Your task to perform on an android device: show emergency info Image 0: 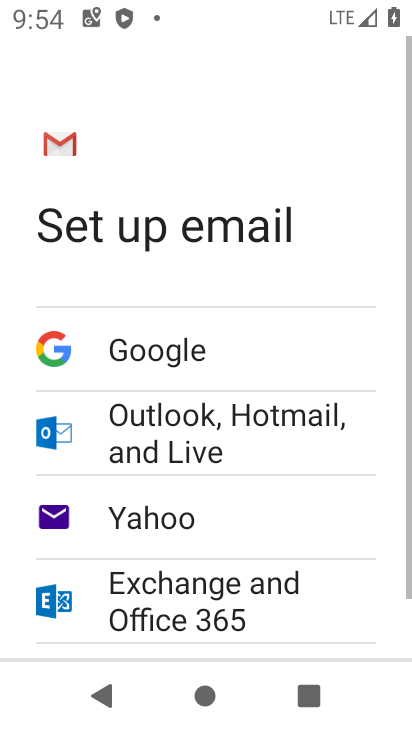
Step 0: press home button
Your task to perform on an android device: show emergency info Image 1: 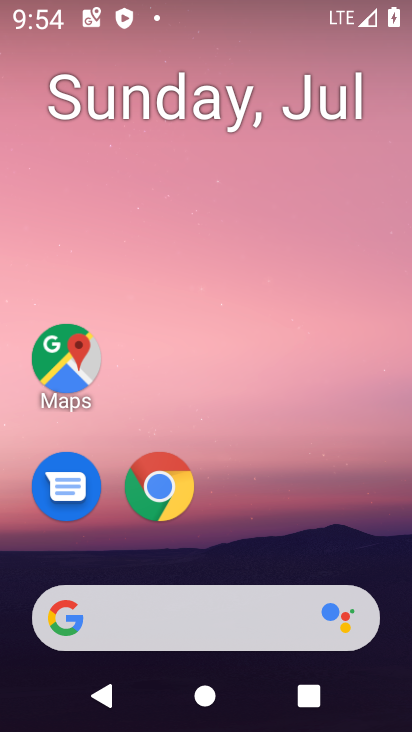
Step 1: drag from (350, 530) to (371, 88)
Your task to perform on an android device: show emergency info Image 2: 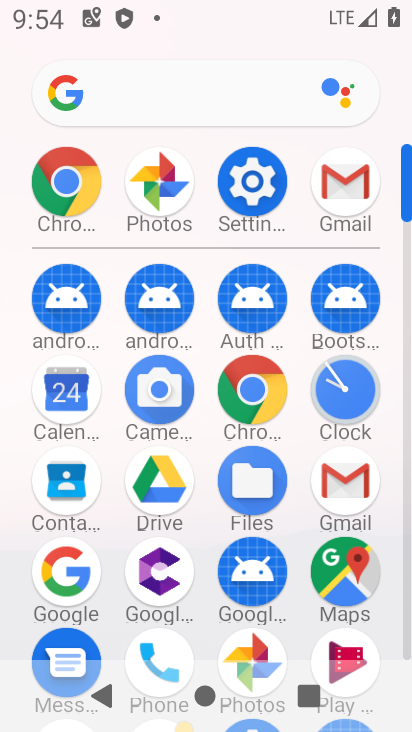
Step 2: click (253, 191)
Your task to perform on an android device: show emergency info Image 3: 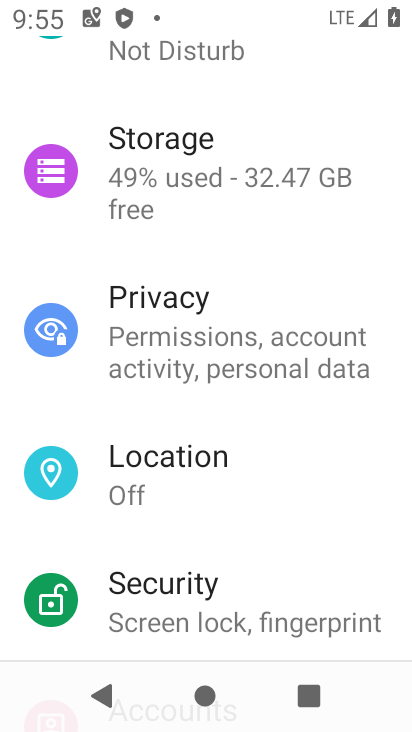
Step 3: drag from (374, 174) to (367, 332)
Your task to perform on an android device: show emergency info Image 4: 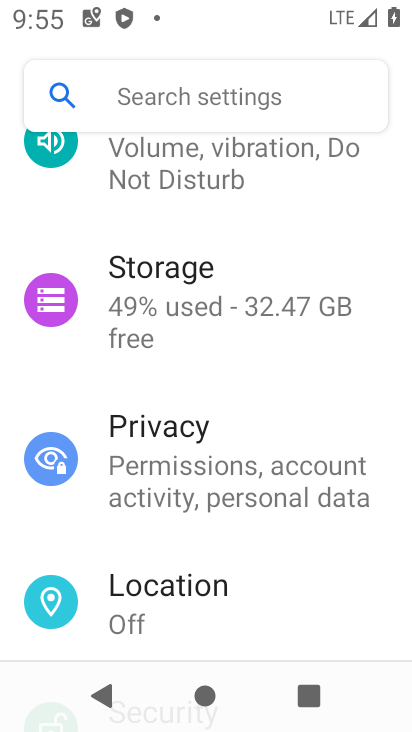
Step 4: drag from (374, 195) to (377, 337)
Your task to perform on an android device: show emergency info Image 5: 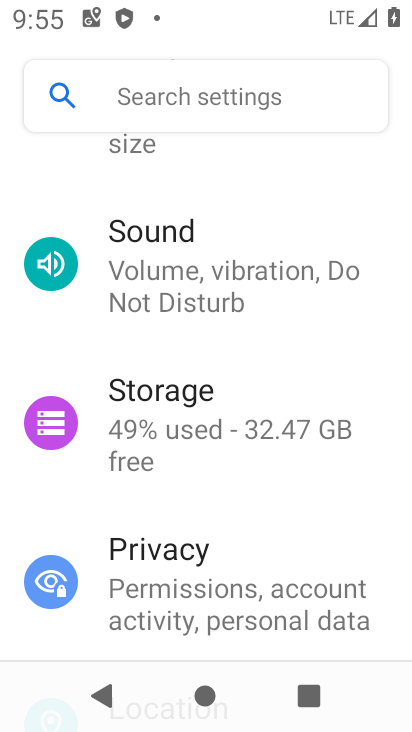
Step 5: drag from (365, 168) to (377, 339)
Your task to perform on an android device: show emergency info Image 6: 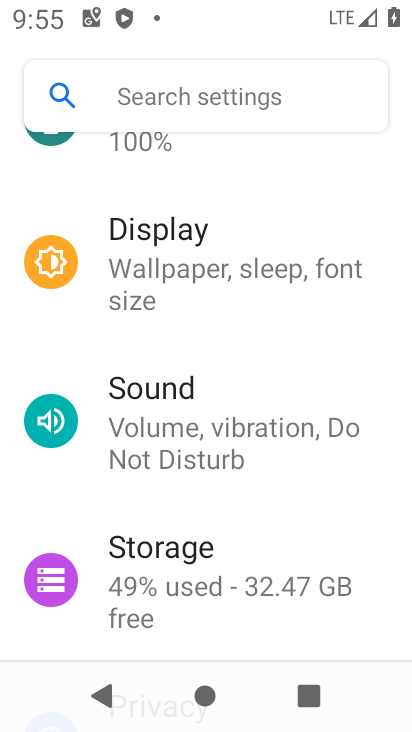
Step 6: drag from (364, 176) to (368, 362)
Your task to perform on an android device: show emergency info Image 7: 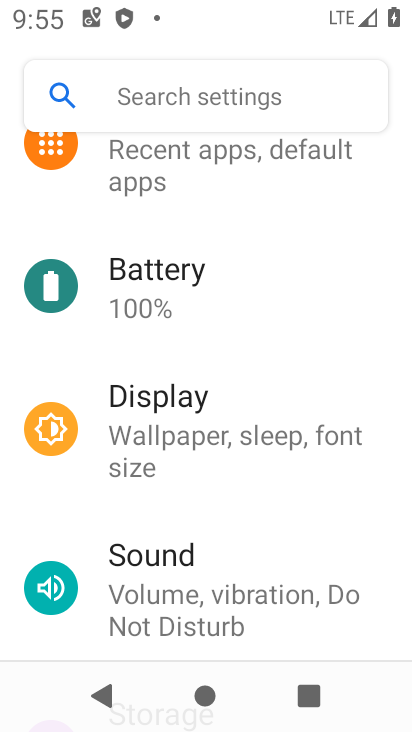
Step 7: drag from (353, 188) to (358, 365)
Your task to perform on an android device: show emergency info Image 8: 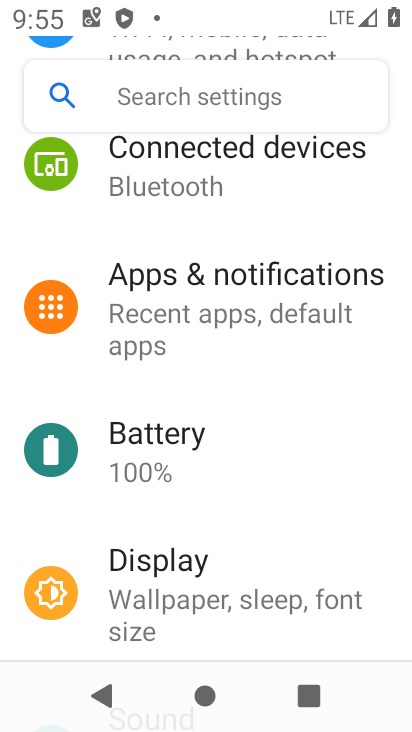
Step 8: drag from (349, 209) to (342, 426)
Your task to perform on an android device: show emergency info Image 9: 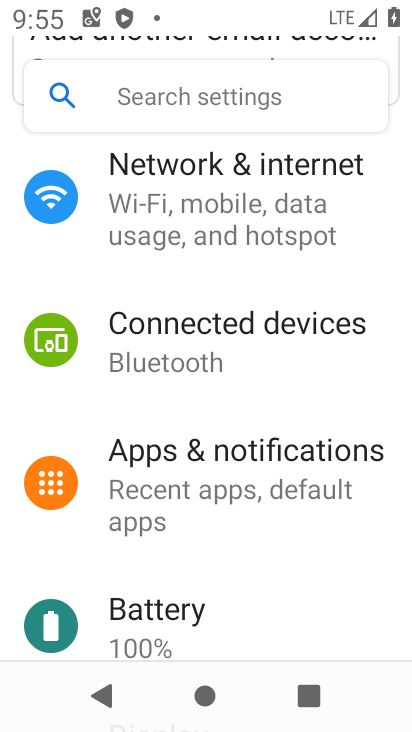
Step 9: drag from (361, 206) to (367, 413)
Your task to perform on an android device: show emergency info Image 10: 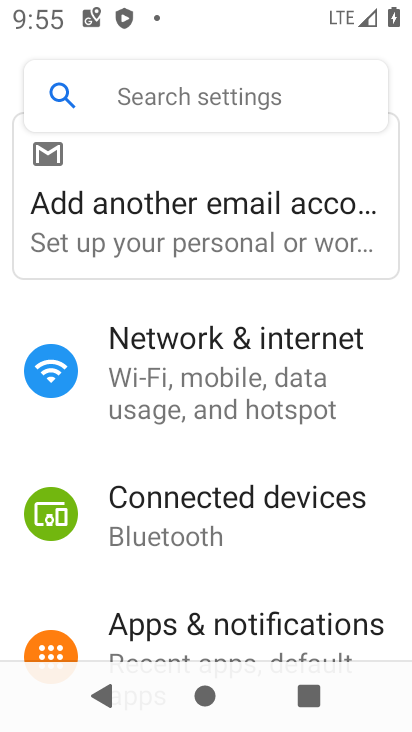
Step 10: drag from (343, 537) to (358, 324)
Your task to perform on an android device: show emergency info Image 11: 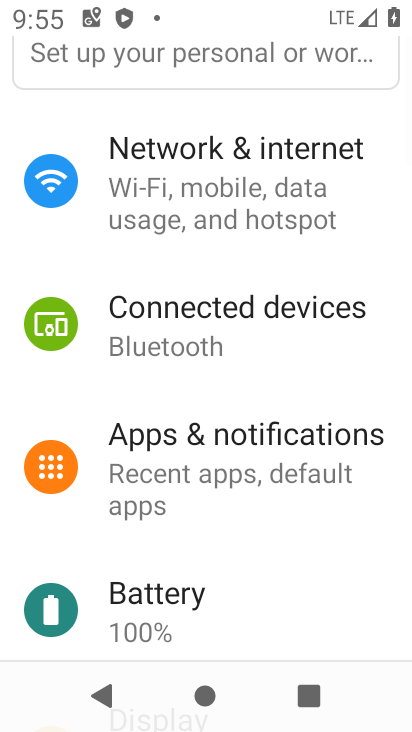
Step 11: drag from (346, 551) to (347, 381)
Your task to perform on an android device: show emergency info Image 12: 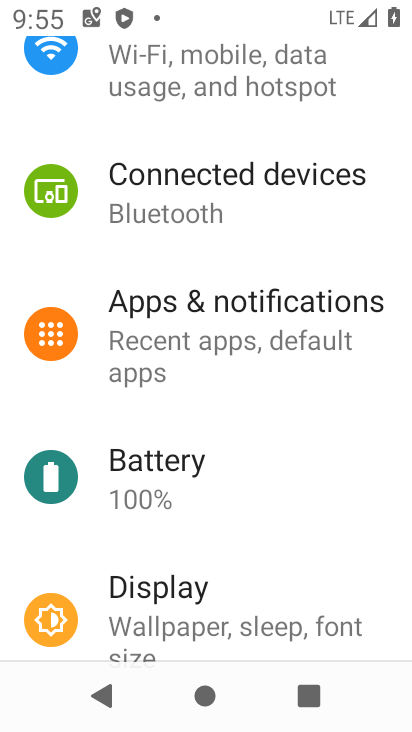
Step 12: drag from (342, 534) to (341, 387)
Your task to perform on an android device: show emergency info Image 13: 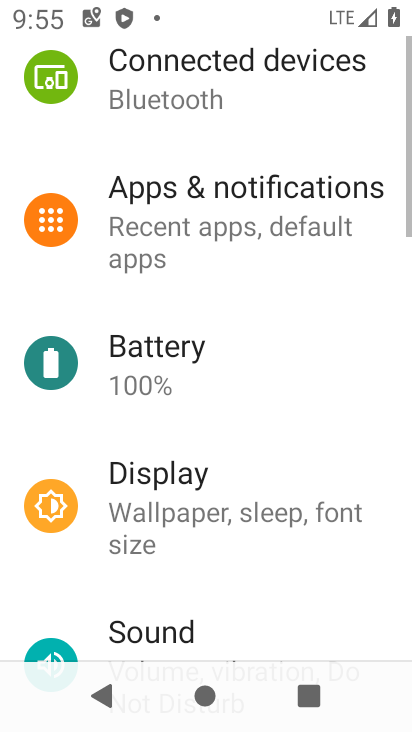
Step 13: drag from (326, 469) to (323, 278)
Your task to perform on an android device: show emergency info Image 14: 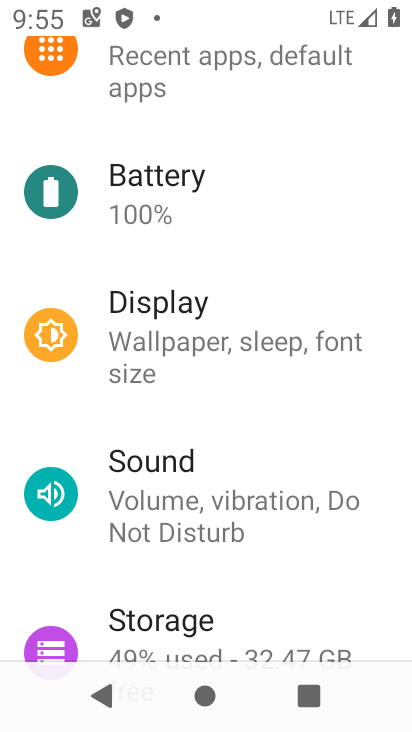
Step 14: drag from (301, 566) to (303, 367)
Your task to perform on an android device: show emergency info Image 15: 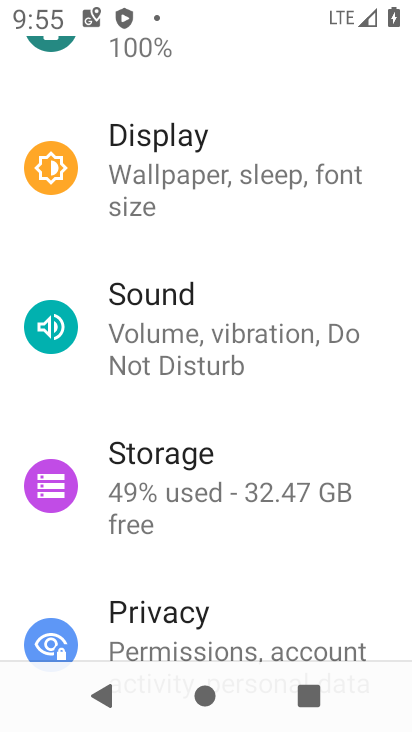
Step 15: drag from (316, 573) to (338, 291)
Your task to perform on an android device: show emergency info Image 16: 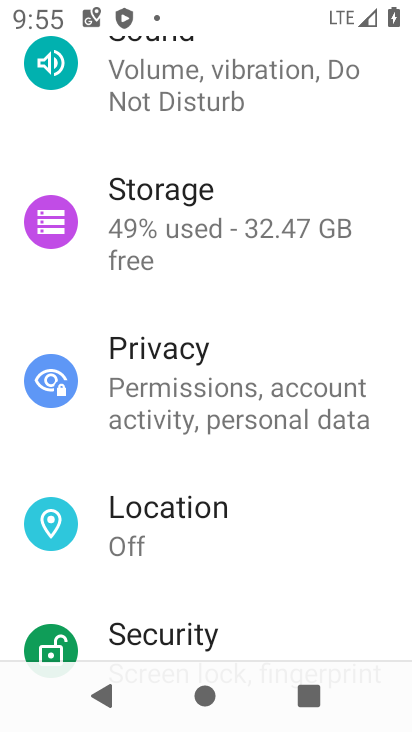
Step 16: drag from (333, 554) to (338, 200)
Your task to perform on an android device: show emergency info Image 17: 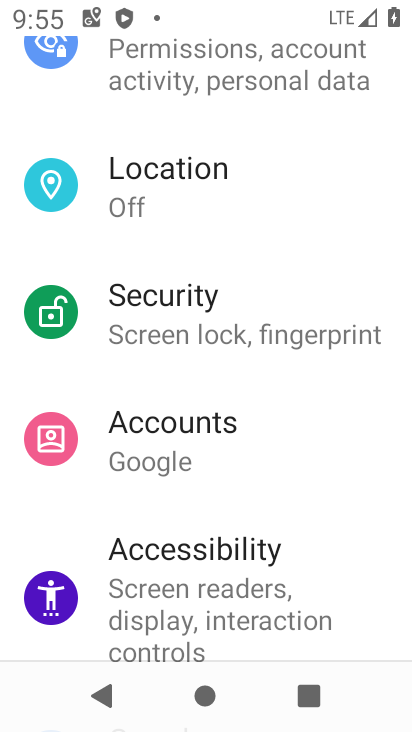
Step 17: drag from (355, 561) to (350, 421)
Your task to perform on an android device: show emergency info Image 18: 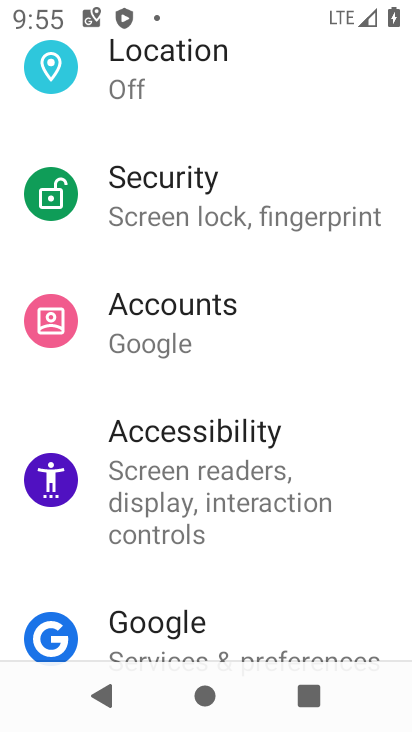
Step 18: drag from (322, 558) to (321, 426)
Your task to perform on an android device: show emergency info Image 19: 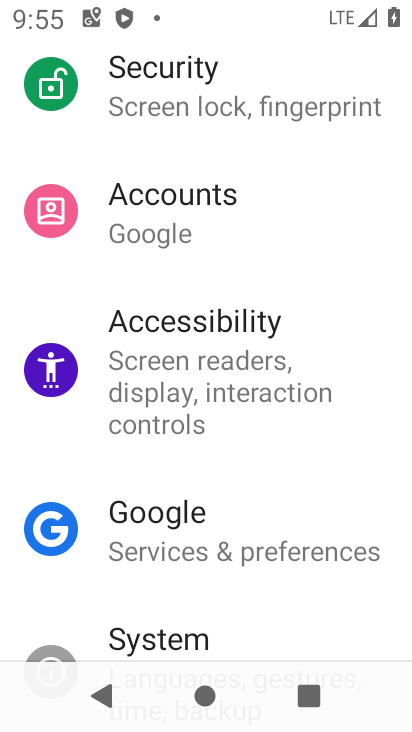
Step 19: drag from (315, 612) to (308, 350)
Your task to perform on an android device: show emergency info Image 20: 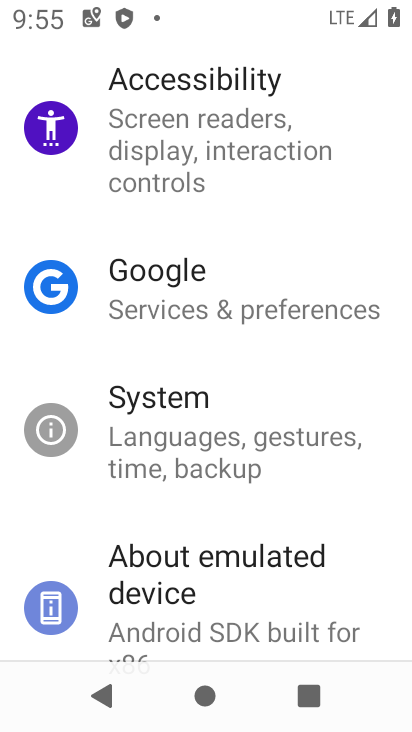
Step 20: click (282, 616)
Your task to perform on an android device: show emergency info Image 21: 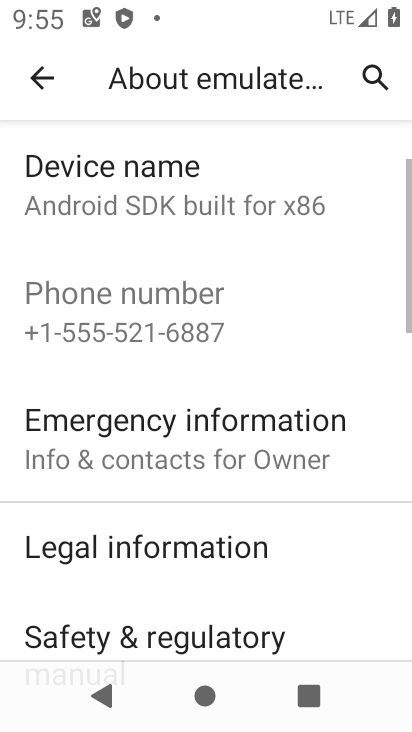
Step 21: click (184, 442)
Your task to perform on an android device: show emergency info Image 22: 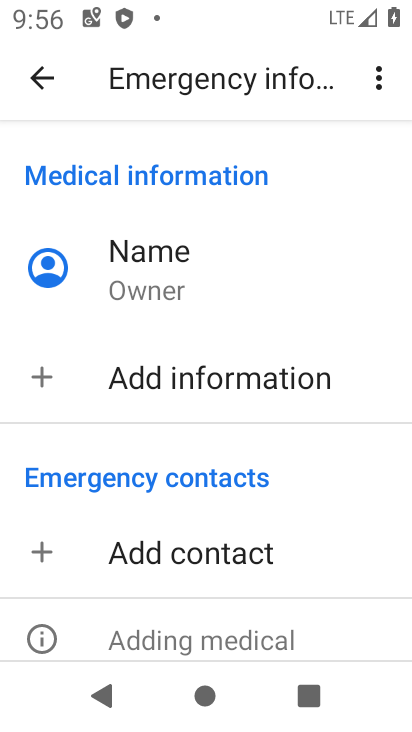
Step 22: task complete